Your task to perform on an android device: Open privacy settings Image 0: 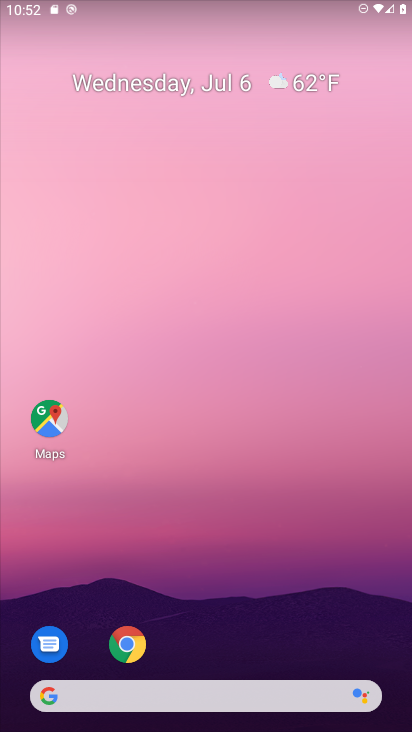
Step 0: press home button
Your task to perform on an android device: Open privacy settings Image 1: 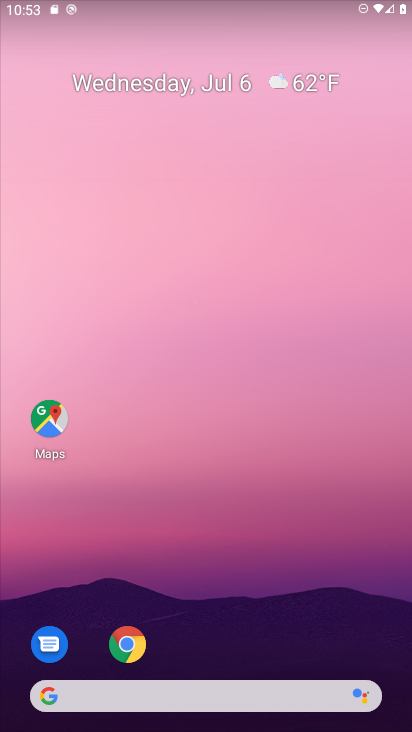
Step 1: drag from (261, 551) to (236, 48)
Your task to perform on an android device: Open privacy settings Image 2: 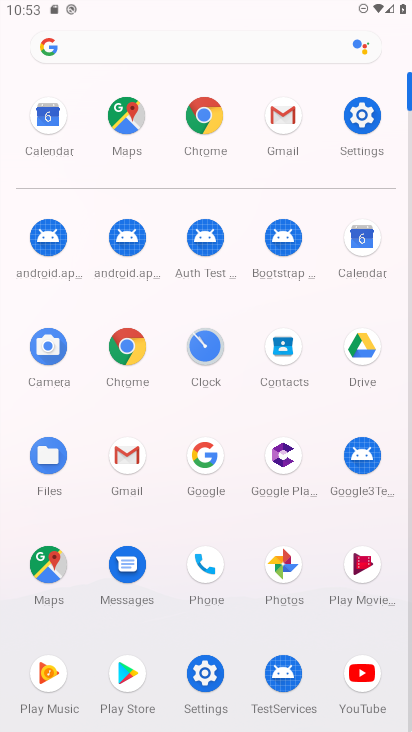
Step 2: click (357, 120)
Your task to perform on an android device: Open privacy settings Image 3: 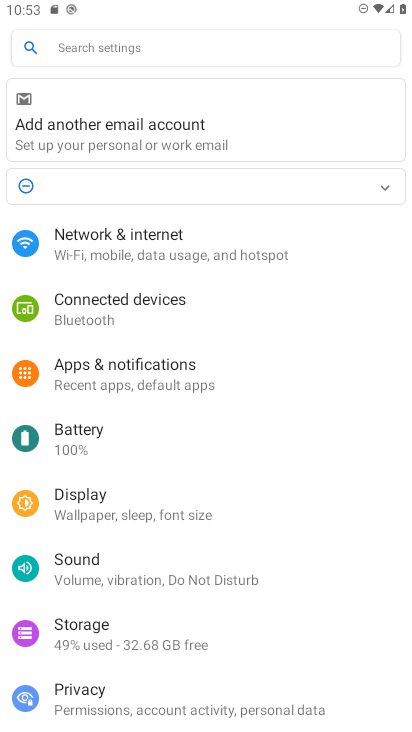
Step 3: click (69, 690)
Your task to perform on an android device: Open privacy settings Image 4: 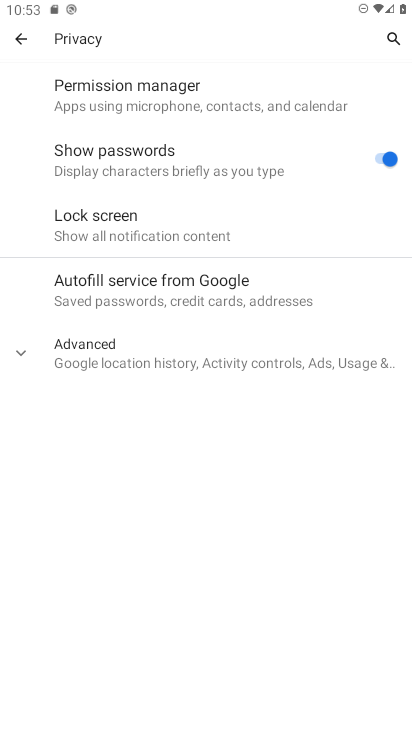
Step 4: task complete